Your task to perform on an android device: toggle sleep mode Image 0: 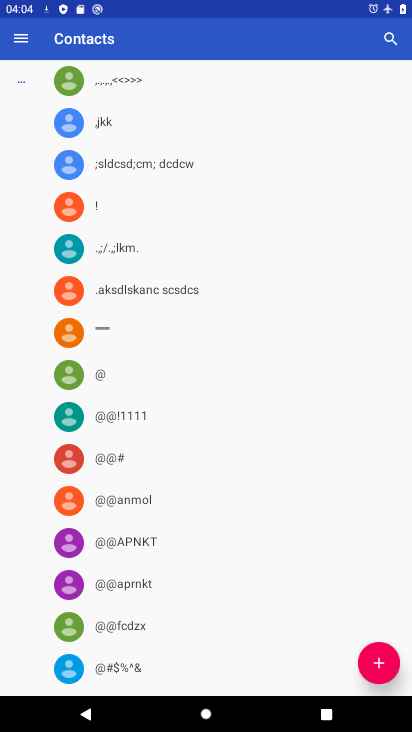
Step 0: press home button
Your task to perform on an android device: toggle sleep mode Image 1: 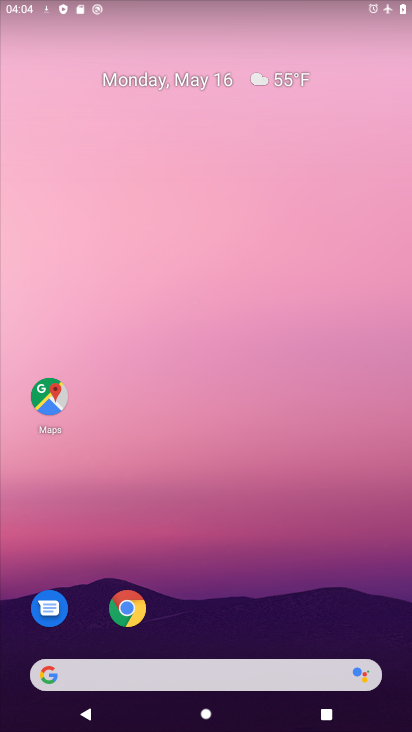
Step 1: drag from (230, 632) to (194, 151)
Your task to perform on an android device: toggle sleep mode Image 2: 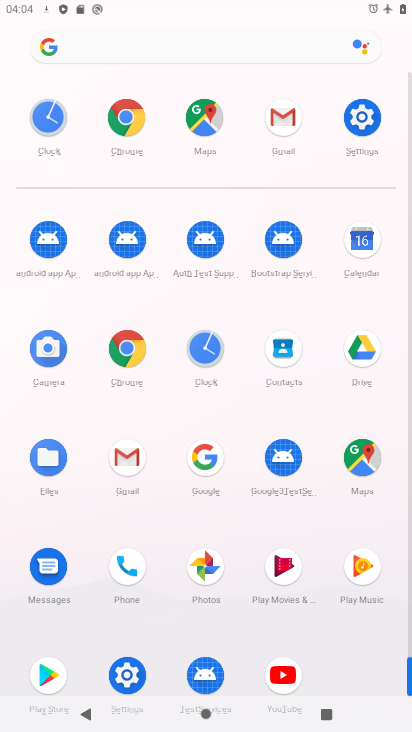
Step 2: click (360, 110)
Your task to perform on an android device: toggle sleep mode Image 3: 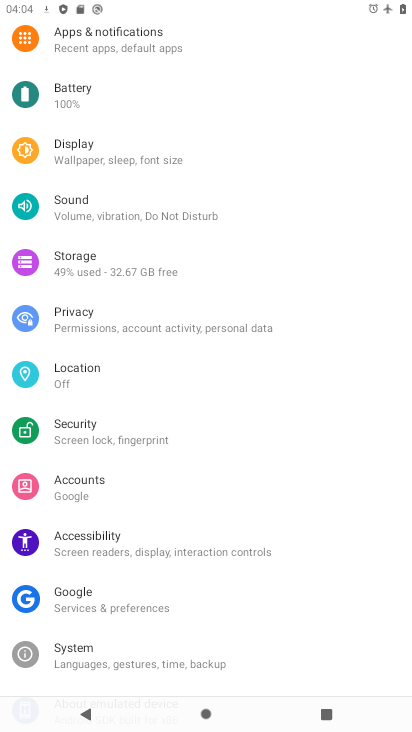
Step 3: click (143, 158)
Your task to perform on an android device: toggle sleep mode Image 4: 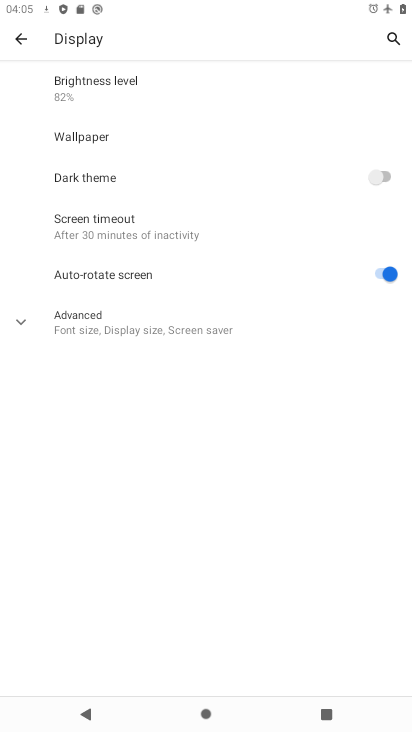
Step 4: click (114, 321)
Your task to perform on an android device: toggle sleep mode Image 5: 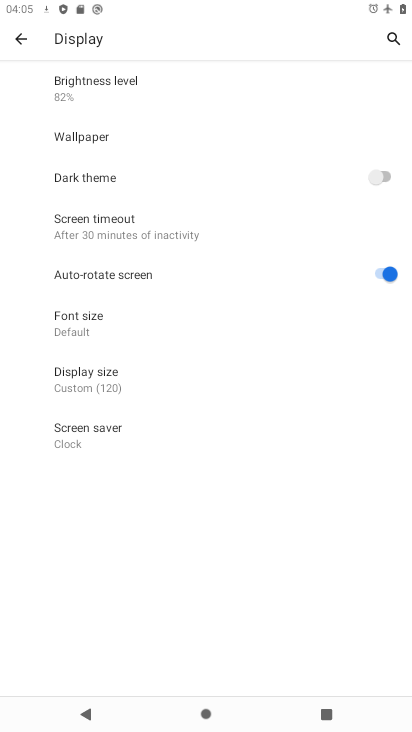
Step 5: click (151, 230)
Your task to perform on an android device: toggle sleep mode Image 6: 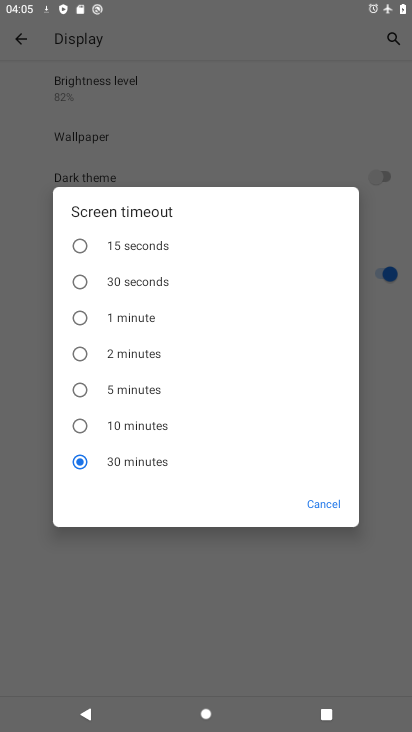
Step 6: click (130, 290)
Your task to perform on an android device: toggle sleep mode Image 7: 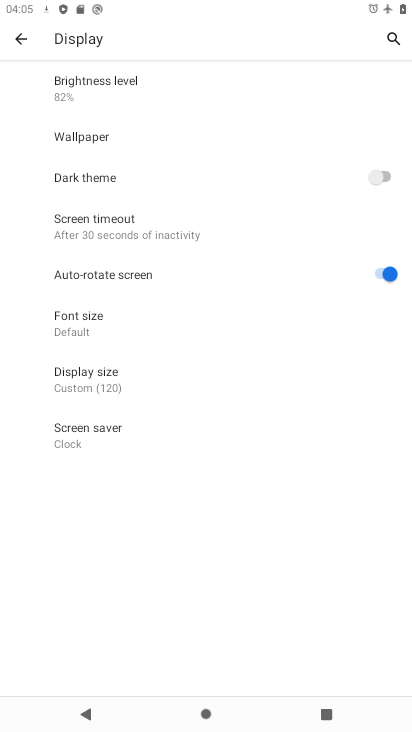
Step 7: task complete